Your task to perform on an android device: open chrome privacy settings Image 0: 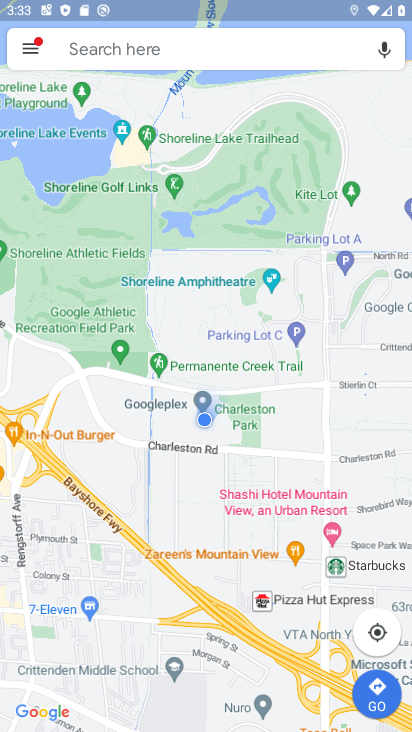
Step 0: press back button
Your task to perform on an android device: open chrome privacy settings Image 1: 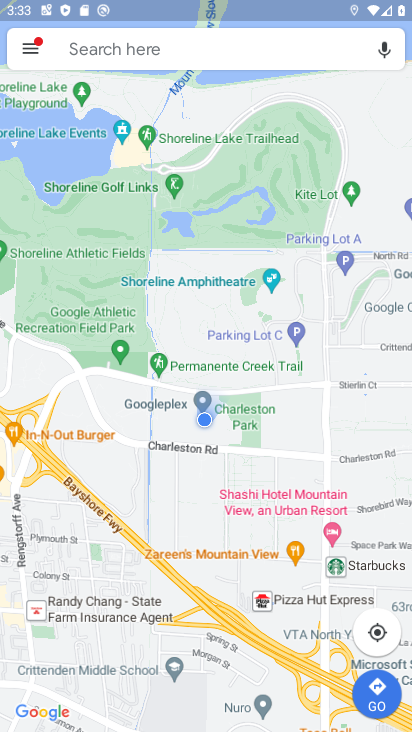
Step 1: press back button
Your task to perform on an android device: open chrome privacy settings Image 2: 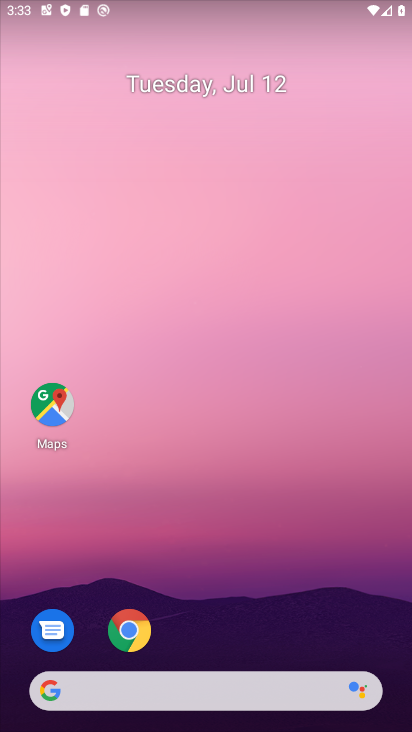
Step 2: drag from (273, 667) to (238, 39)
Your task to perform on an android device: open chrome privacy settings Image 3: 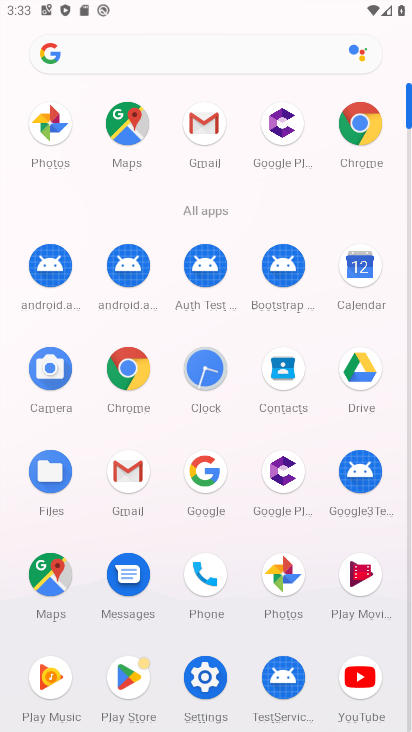
Step 3: click (205, 672)
Your task to perform on an android device: open chrome privacy settings Image 4: 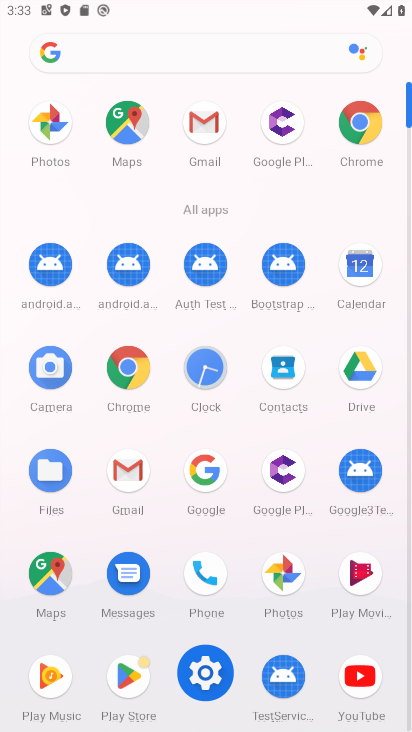
Step 4: click (206, 666)
Your task to perform on an android device: open chrome privacy settings Image 5: 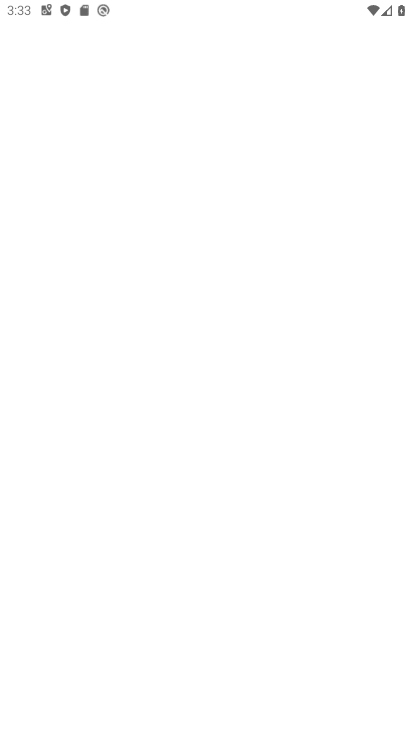
Step 5: click (206, 666)
Your task to perform on an android device: open chrome privacy settings Image 6: 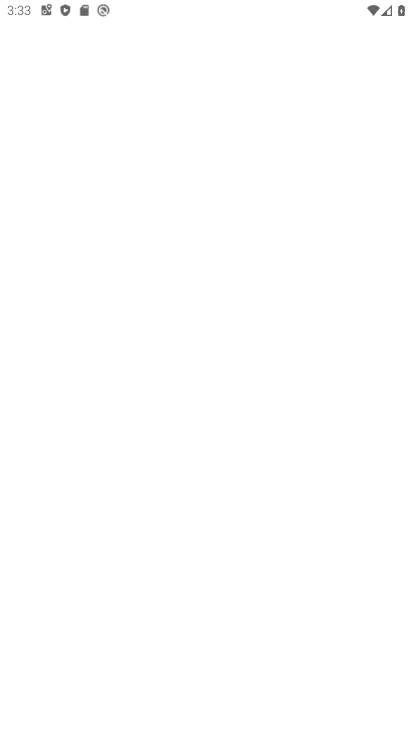
Step 6: click (207, 667)
Your task to perform on an android device: open chrome privacy settings Image 7: 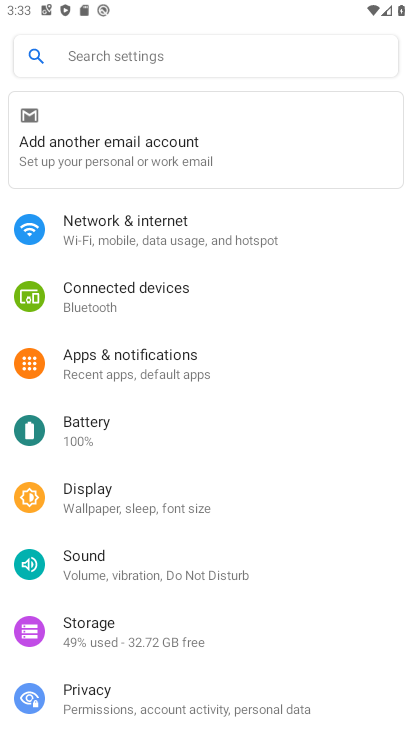
Step 7: drag from (177, 422) to (165, 322)
Your task to perform on an android device: open chrome privacy settings Image 8: 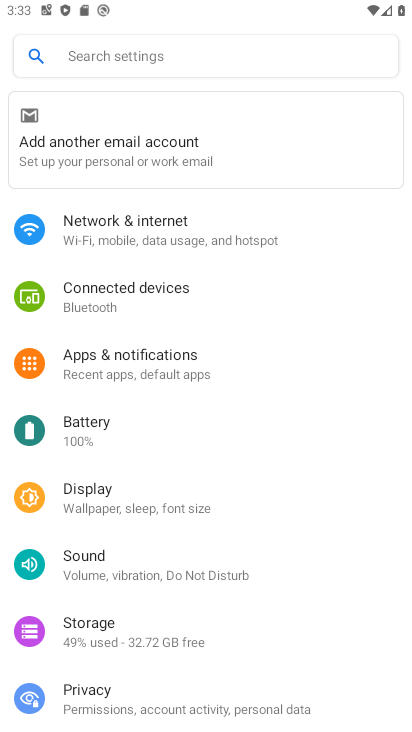
Step 8: click (91, 697)
Your task to perform on an android device: open chrome privacy settings Image 9: 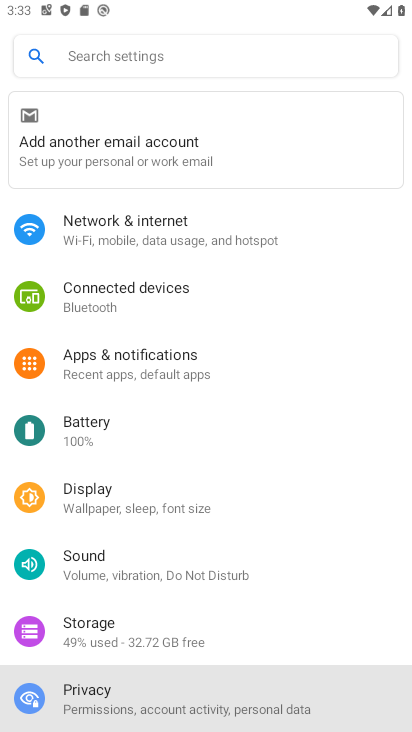
Step 9: click (92, 697)
Your task to perform on an android device: open chrome privacy settings Image 10: 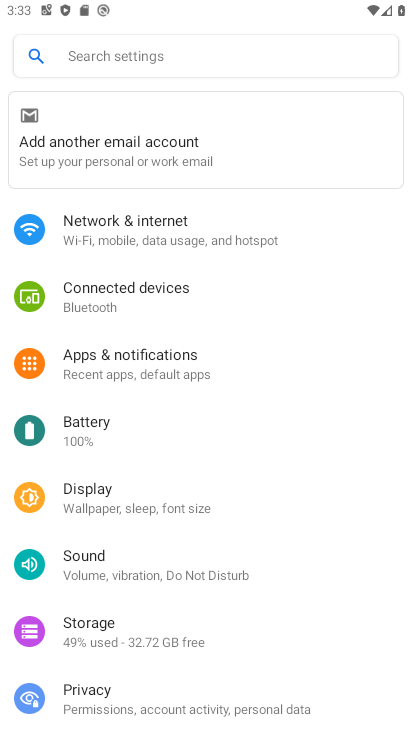
Step 10: click (94, 695)
Your task to perform on an android device: open chrome privacy settings Image 11: 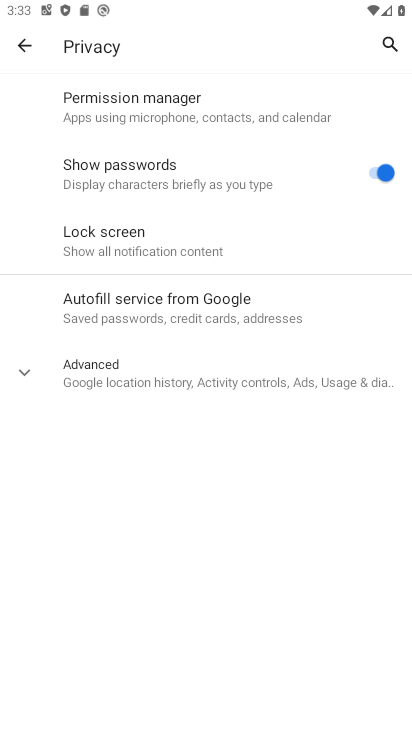
Step 11: task complete